Your task to perform on an android device: open app "Yahoo Mail" (install if not already installed) and go to login screen Image 0: 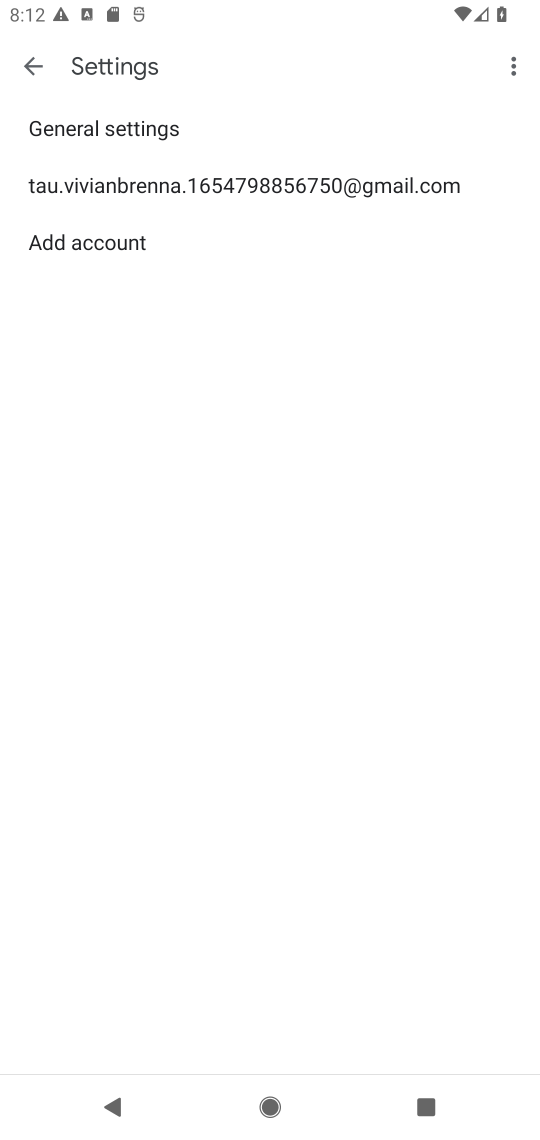
Step 0: press home button
Your task to perform on an android device: open app "Yahoo Mail" (install if not already installed) and go to login screen Image 1: 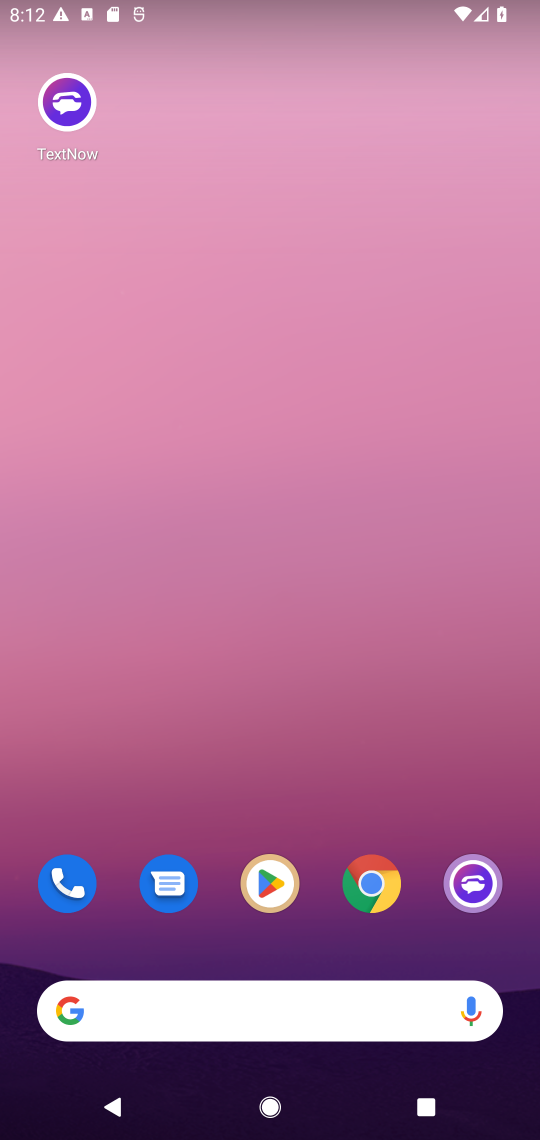
Step 1: click (275, 889)
Your task to perform on an android device: open app "Yahoo Mail" (install if not already installed) and go to login screen Image 2: 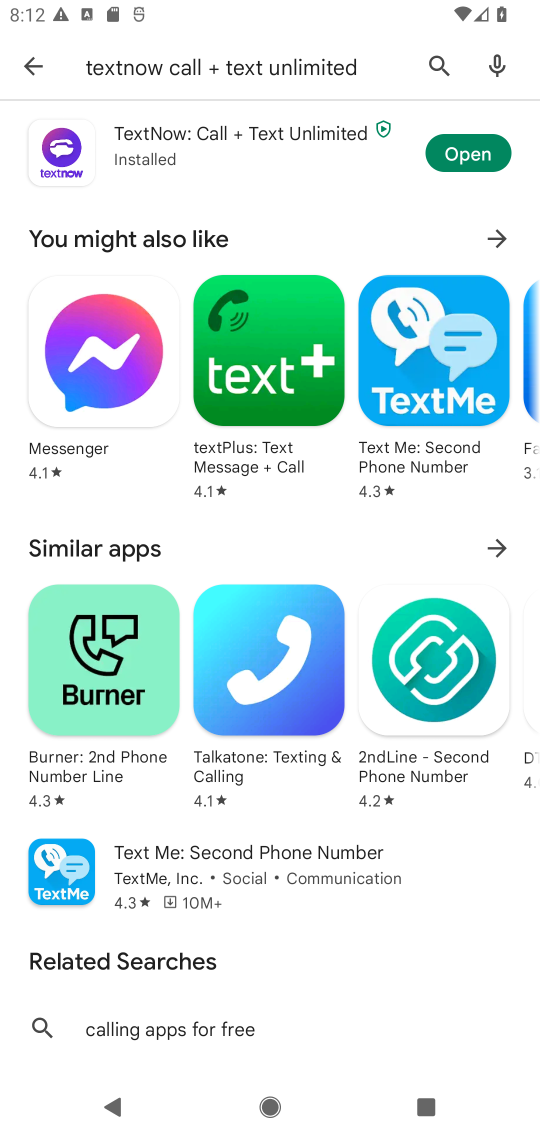
Step 2: click (436, 59)
Your task to perform on an android device: open app "Yahoo Mail" (install if not already installed) and go to login screen Image 3: 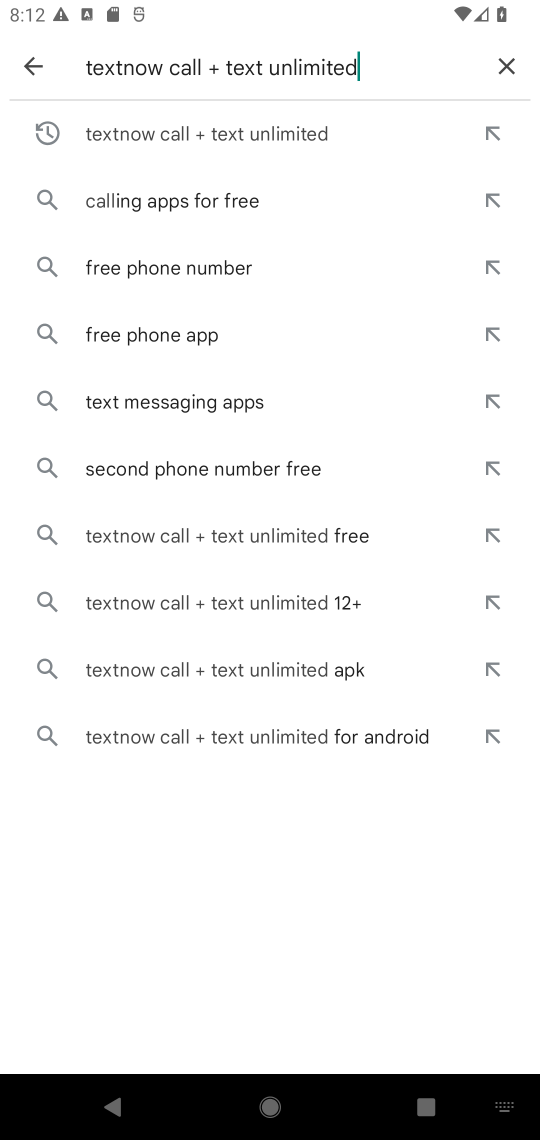
Step 3: click (504, 67)
Your task to perform on an android device: open app "Yahoo Mail" (install if not already installed) and go to login screen Image 4: 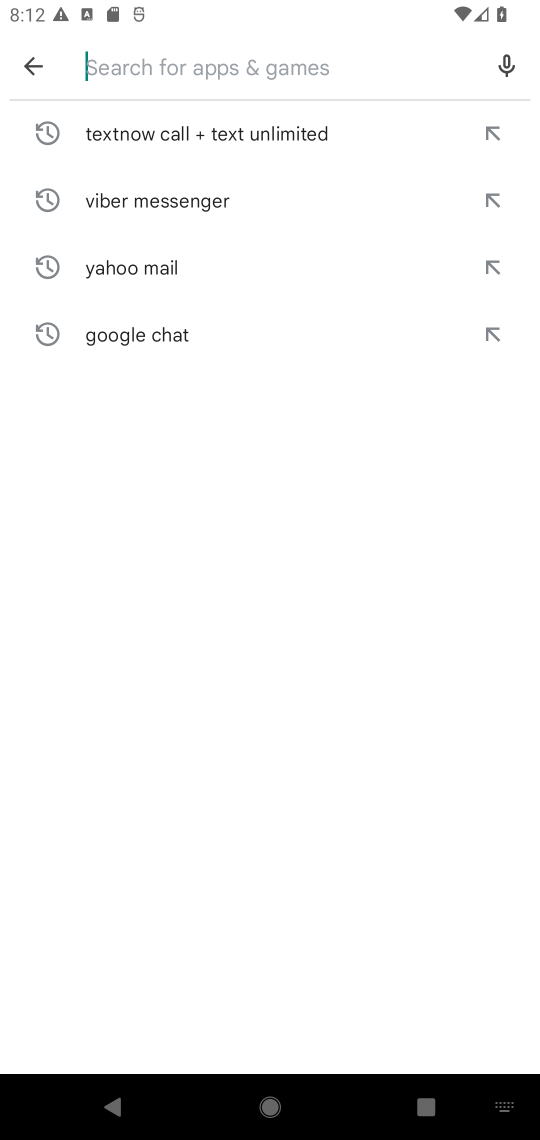
Step 4: type "Yahoo Mail"
Your task to perform on an android device: open app "Yahoo Mail" (install if not already installed) and go to login screen Image 5: 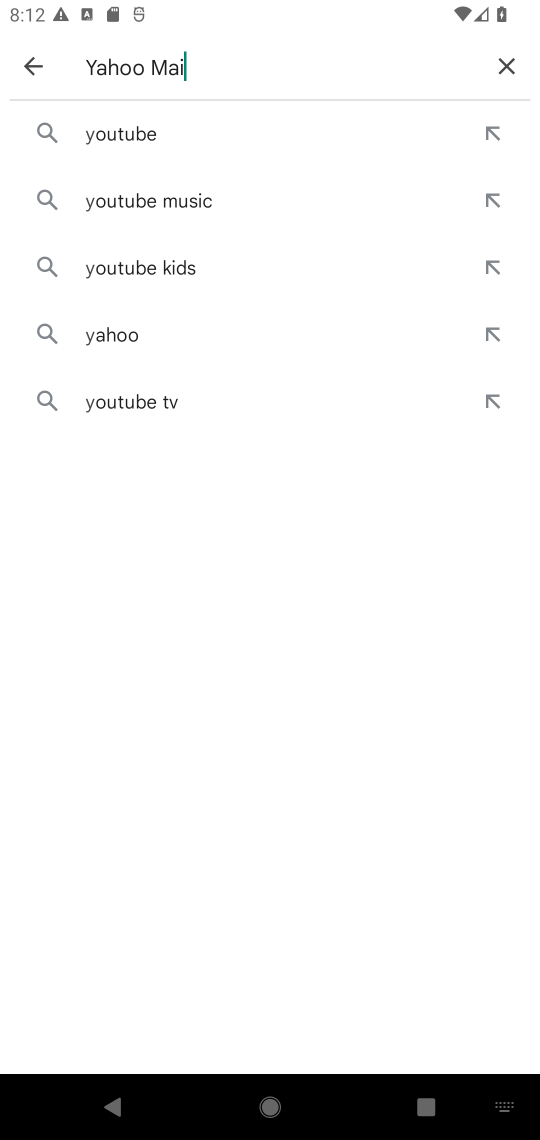
Step 5: type ""
Your task to perform on an android device: open app "Yahoo Mail" (install if not already installed) and go to login screen Image 6: 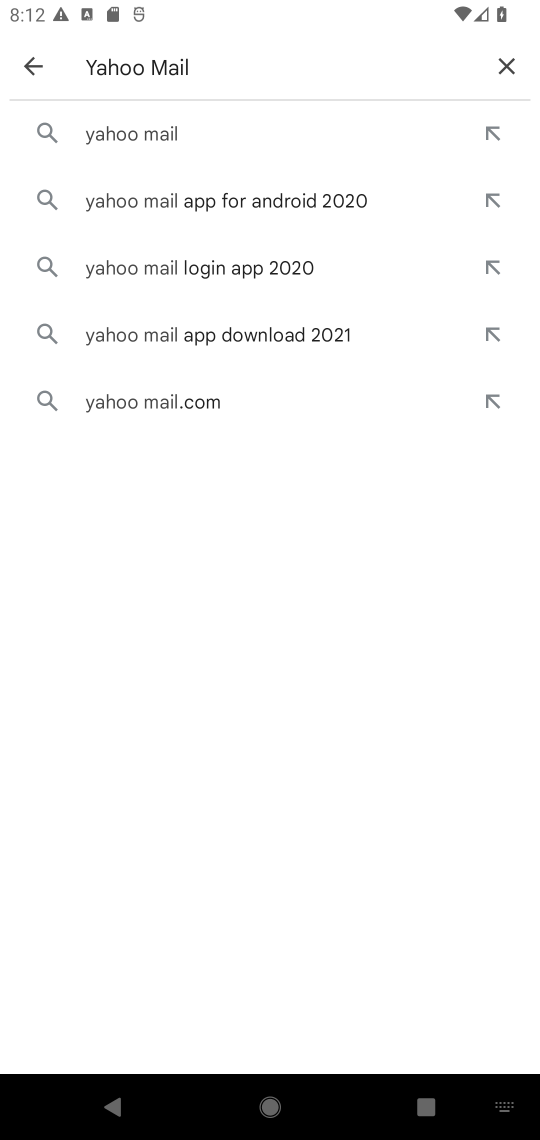
Step 6: click (146, 126)
Your task to perform on an android device: open app "Yahoo Mail" (install if not already installed) and go to login screen Image 7: 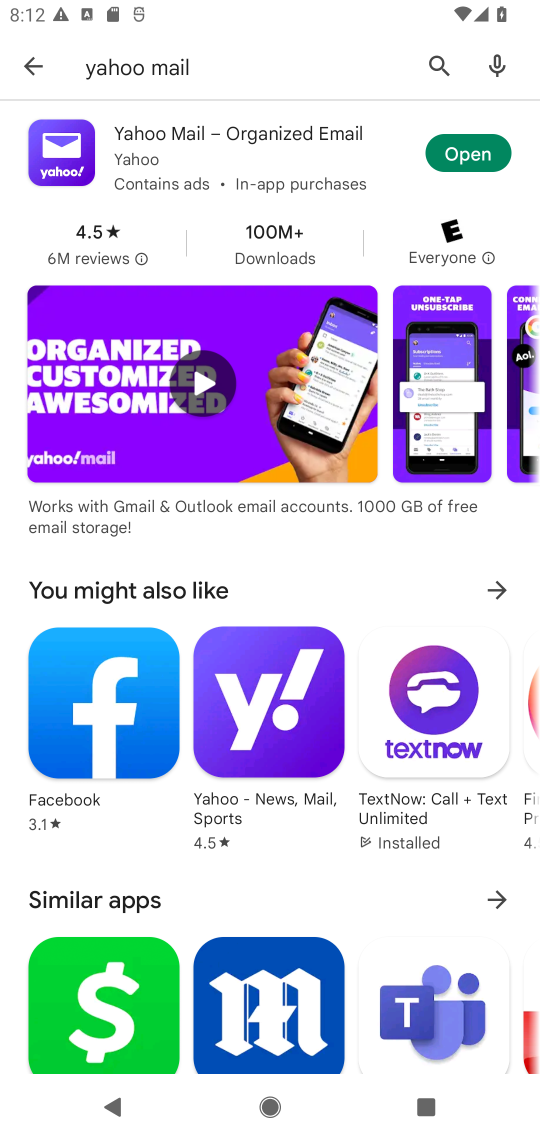
Step 7: click (458, 148)
Your task to perform on an android device: open app "Yahoo Mail" (install if not already installed) and go to login screen Image 8: 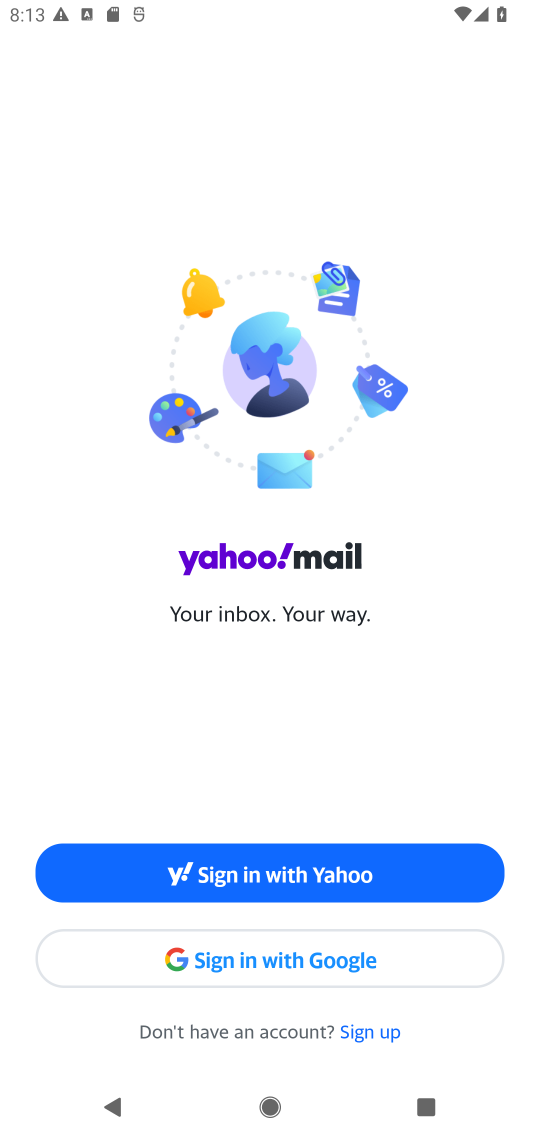
Step 8: task complete